Your task to perform on an android device: empty trash in google photos Image 0: 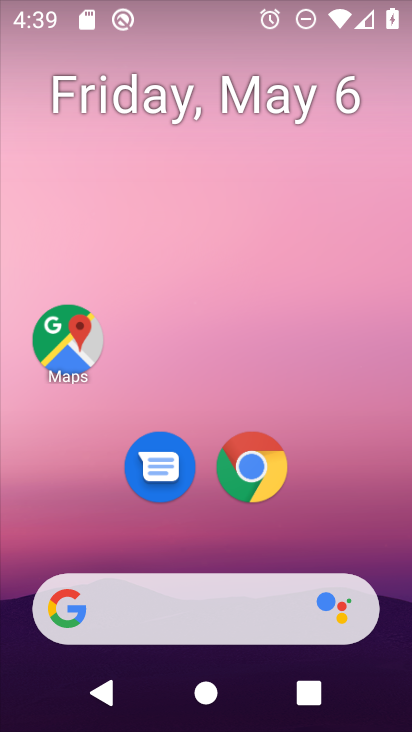
Step 0: click (251, 169)
Your task to perform on an android device: empty trash in google photos Image 1: 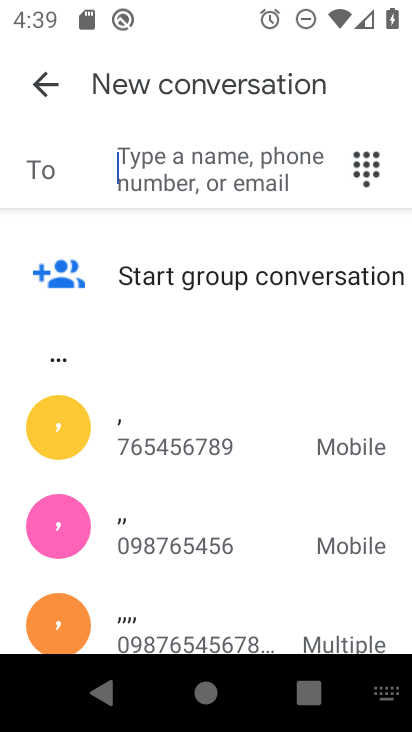
Step 1: press home button
Your task to perform on an android device: empty trash in google photos Image 2: 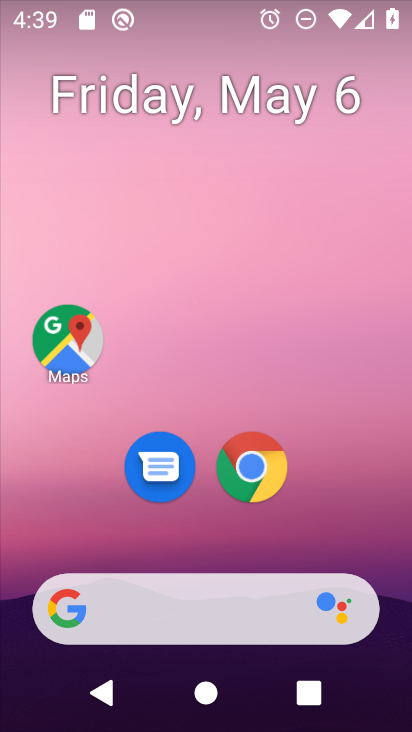
Step 2: click (267, 460)
Your task to perform on an android device: empty trash in google photos Image 3: 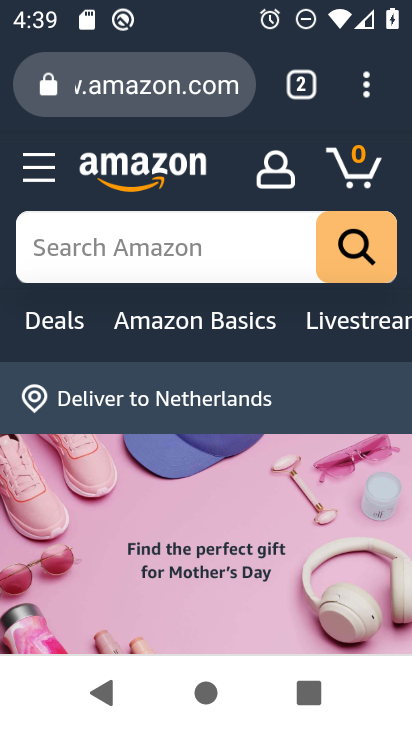
Step 3: press home button
Your task to perform on an android device: empty trash in google photos Image 4: 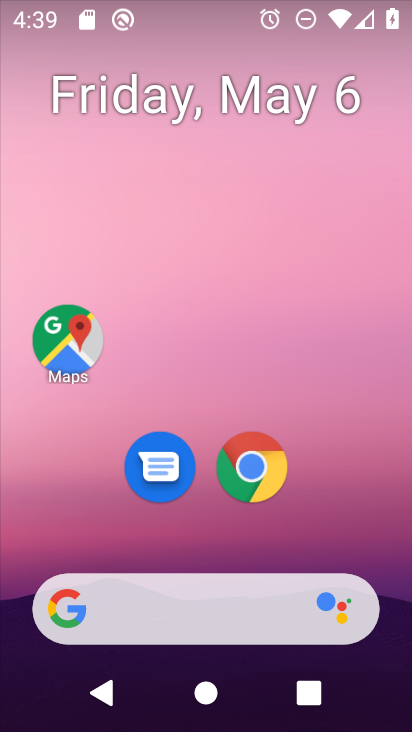
Step 4: drag from (341, 502) to (258, 148)
Your task to perform on an android device: empty trash in google photos Image 5: 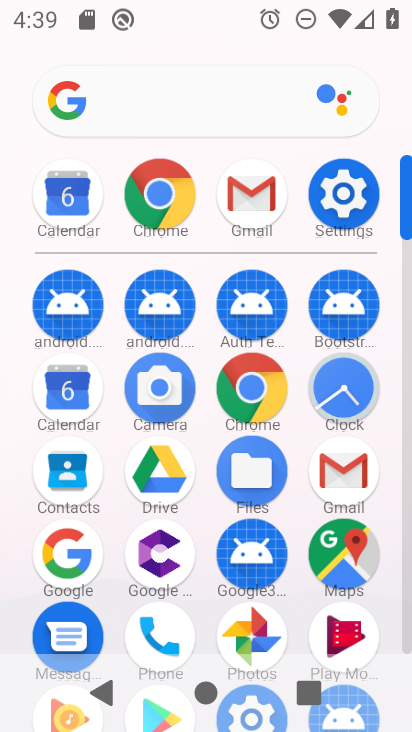
Step 5: click (265, 628)
Your task to perform on an android device: empty trash in google photos Image 6: 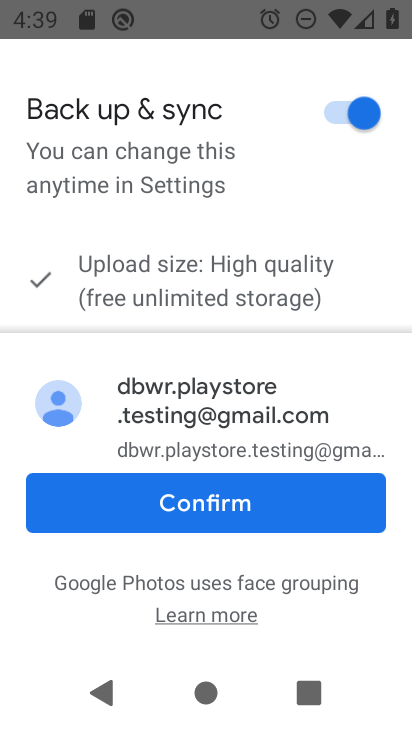
Step 6: click (144, 491)
Your task to perform on an android device: empty trash in google photos Image 7: 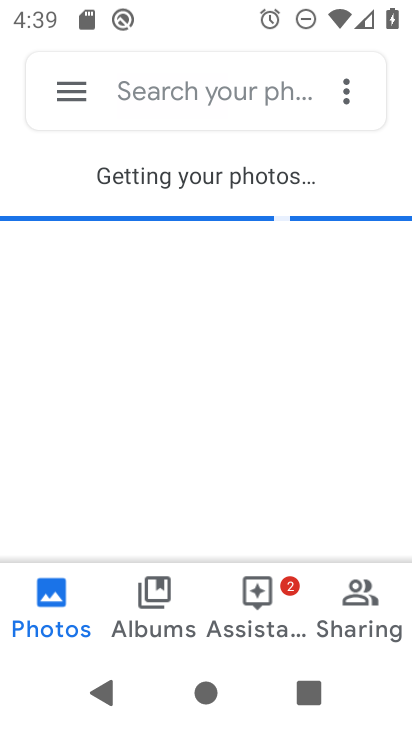
Step 7: click (67, 98)
Your task to perform on an android device: empty trash in google photos Image 8: 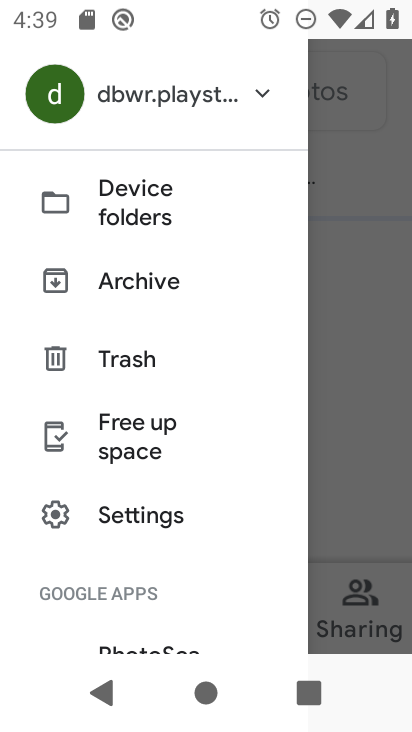
Step 8: click (117, 360)
Your task to perform on an android device: empty trash in google photos Image 9: 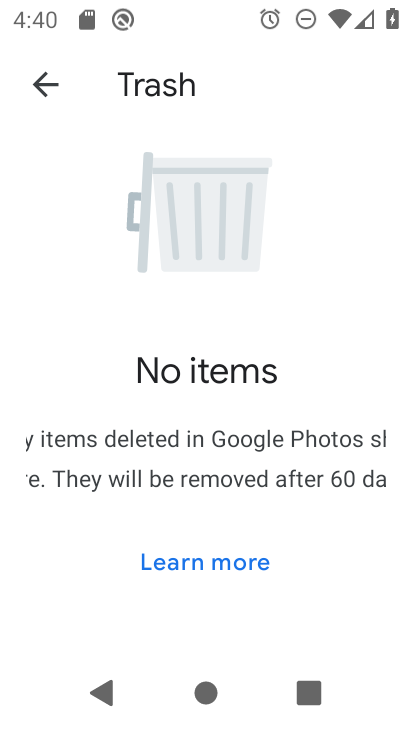
Step 9: task complete